Your task to perform on an android device: add a contact Image 0: 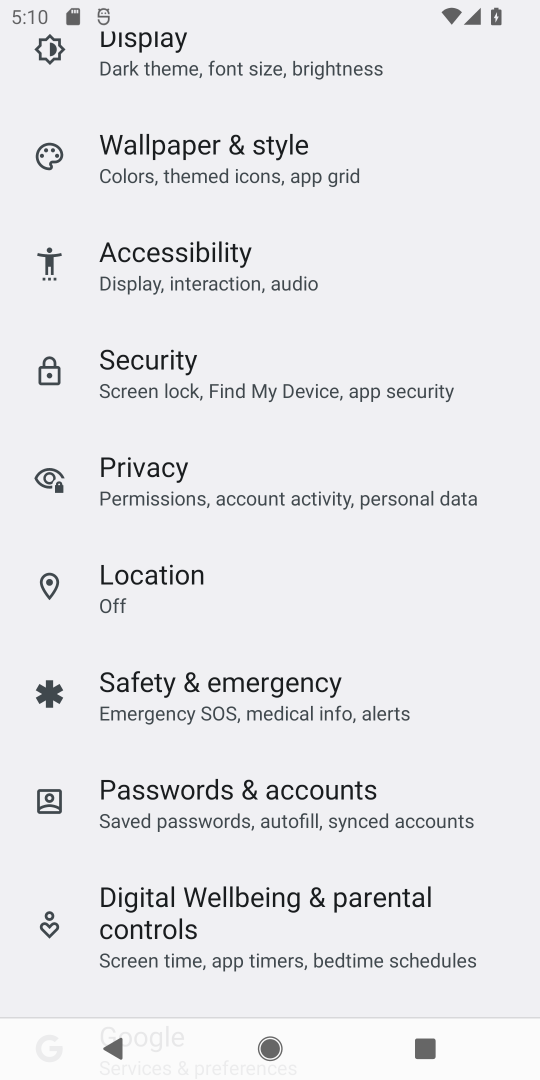
Step 0: press home button
Your task to perform on an android device: add a contact Image 1: 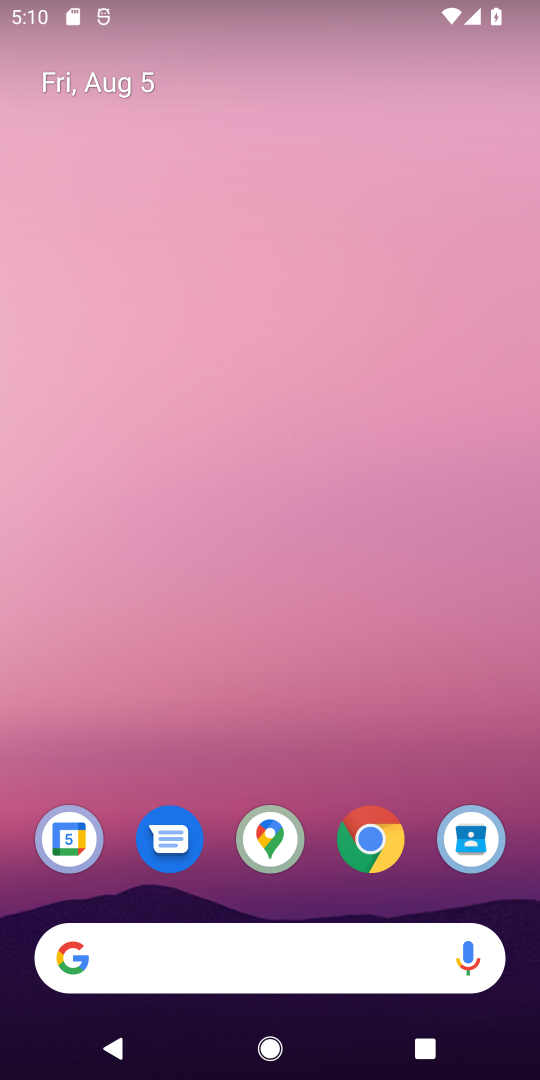
Step 1: click (487, 844)
Your task to perform on an android device: add a contact Image 2: 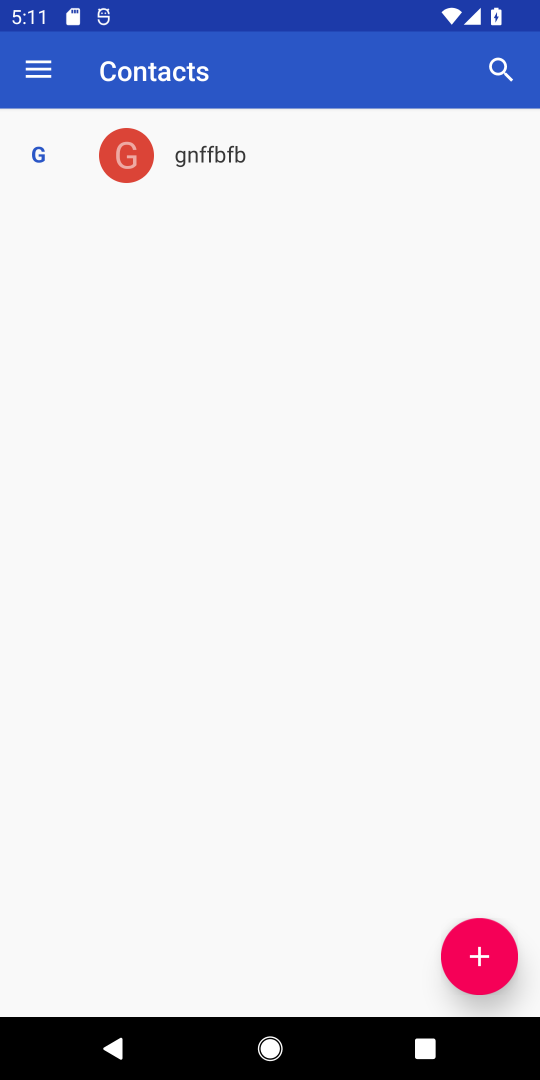
Step 2: click (467, 949)
Your task to perform on an android device: add a contact Image 3: 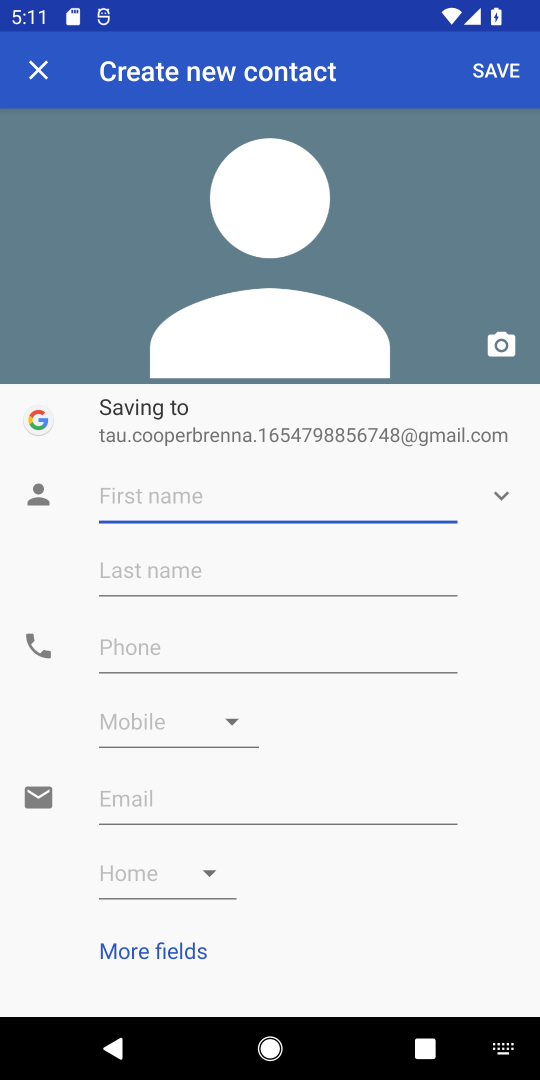
Step 3: type "hghgvh"
Your task to perform on an android device: add a contact Image 4: 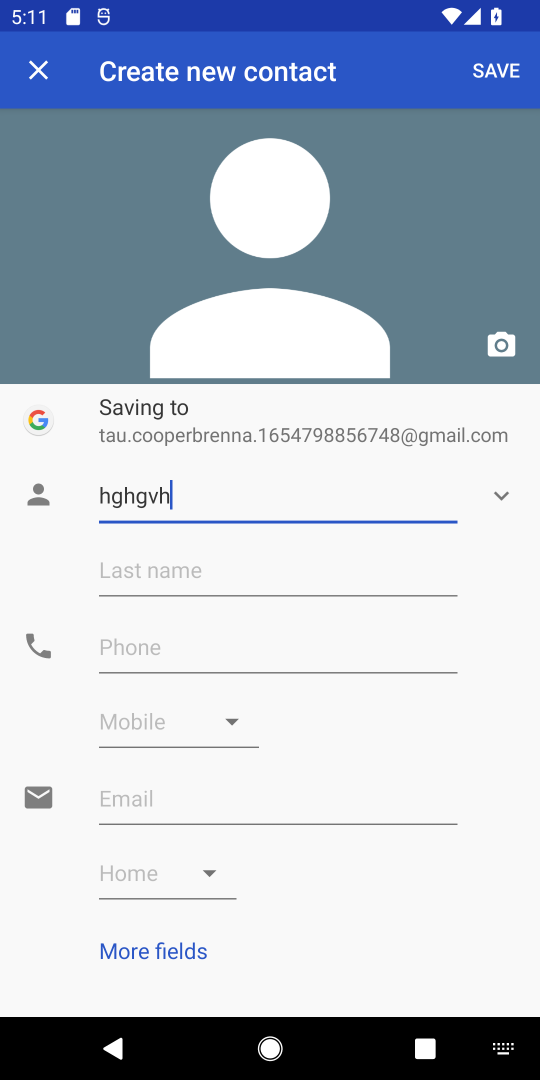
Step 4: click (112, 639)
Your task to perform on an android device: add a contact Image 5: 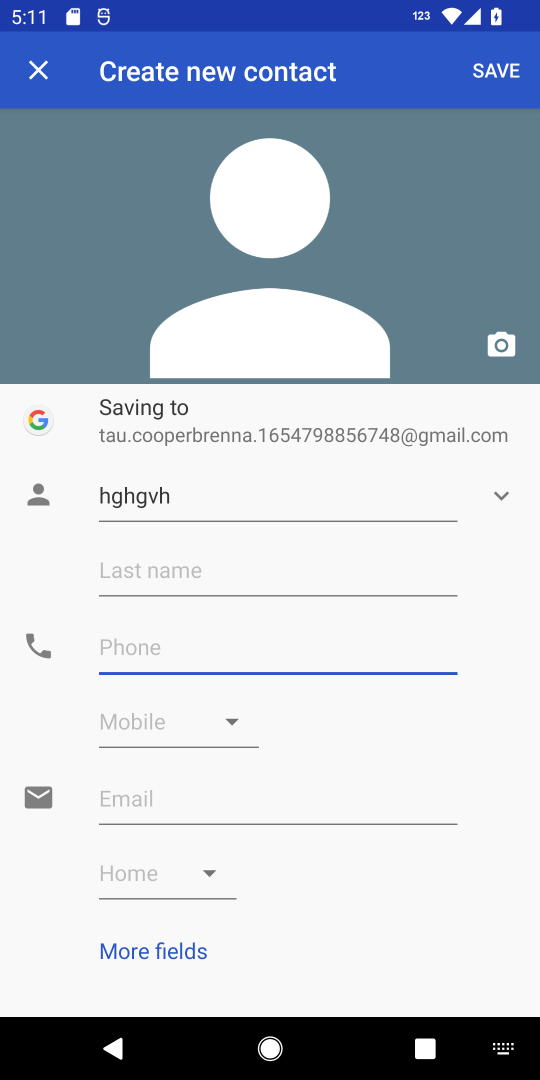
Step 5: type "6585685754"
Your task to perform on an android device: add a contact Image 6: 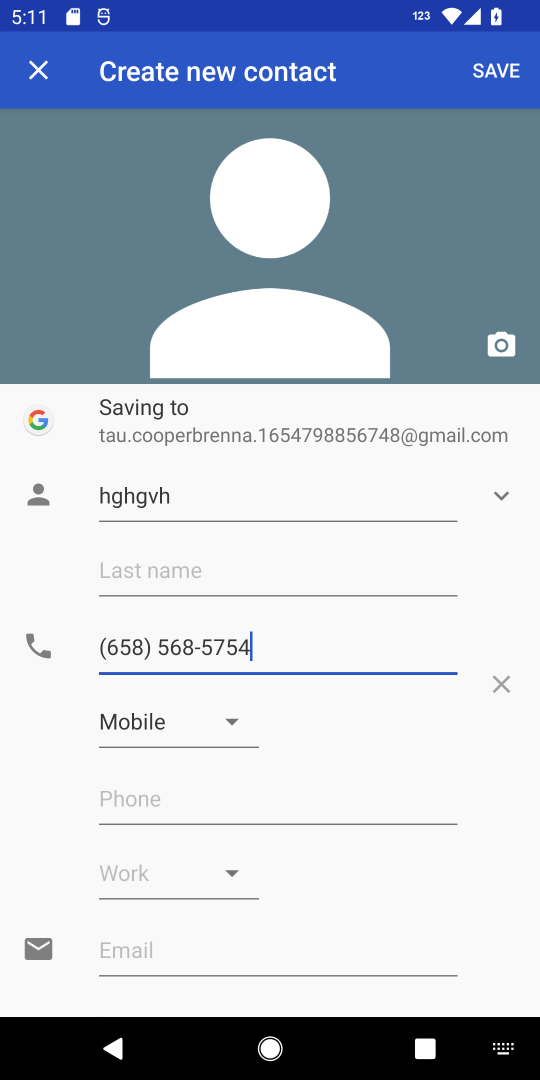
Step 6: click (483, 78)
Your task to perform on an android device: add a contact Image 7: 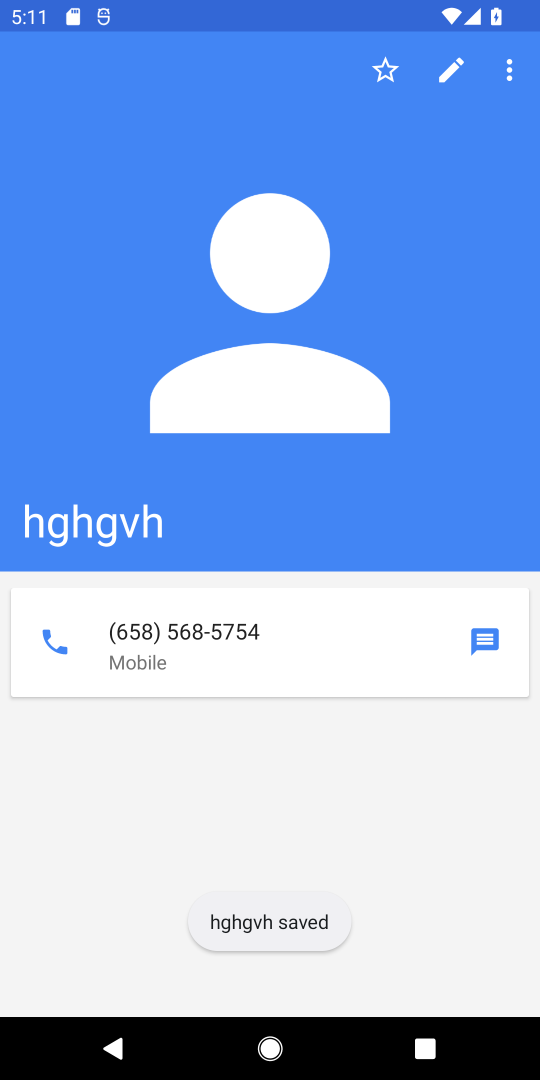
Step 7: task complete